Your task to perform on an android device: turn off improve location accuracy Image 0: 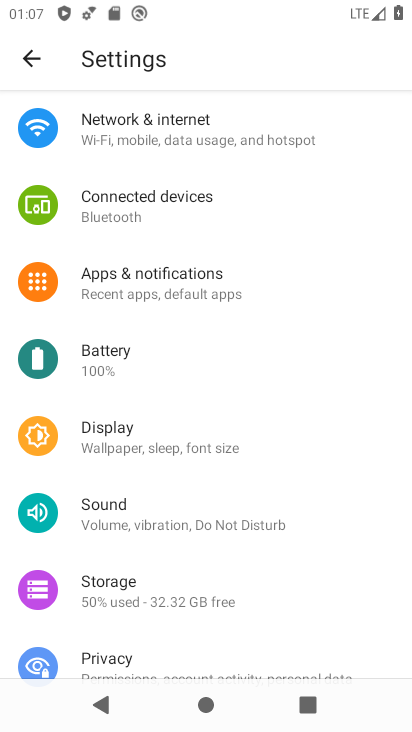
Step 0: drag from (216, 628) to (286, 208)
Your task to perform on an android device: turn off improve location accuracy Image 1: 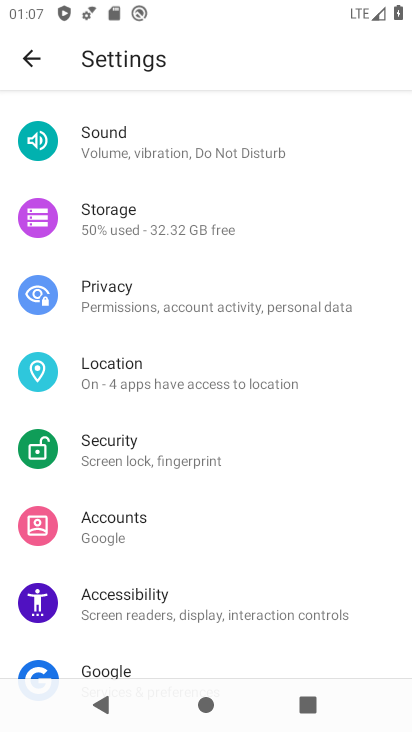
Step 1: click (176, 369)
Your task to perform on an android device: turn off improve location accuracy Image 2: 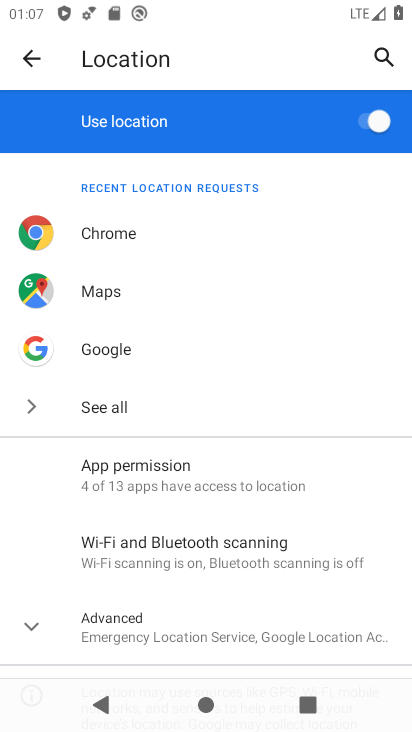
Step 2: click (28, 628)
Your task to perform on an android device: turn off improve location accuracy Image 3: 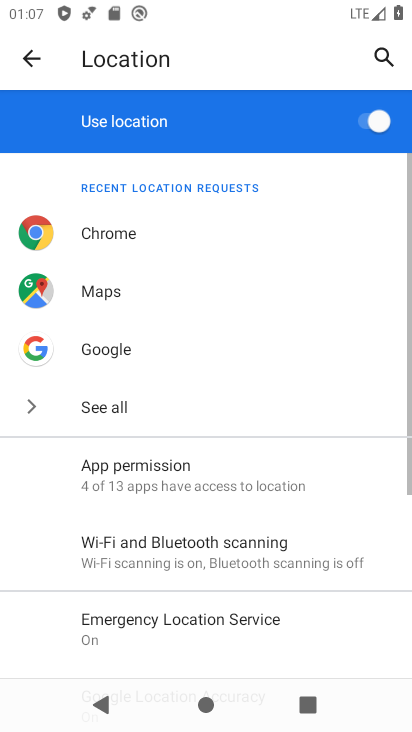
Step 3: drag from (192, 591) to (262, 213)
Your task to perform on an android device: turn off improve location accuracy Image 4: 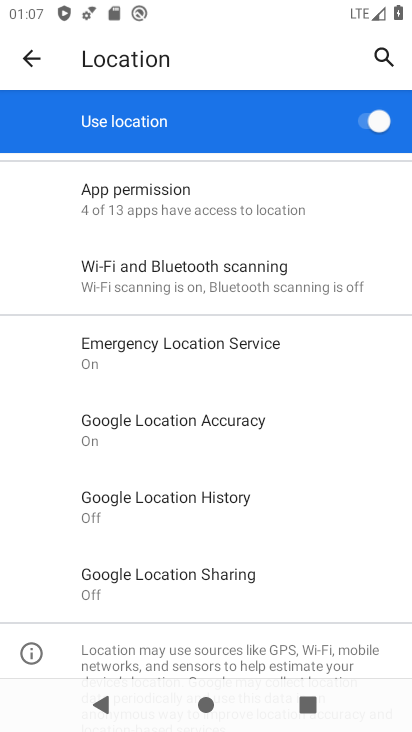
Step 4: click (207, 436)
Your task to perform on an android device: turn off improve location accuracy Image 5: 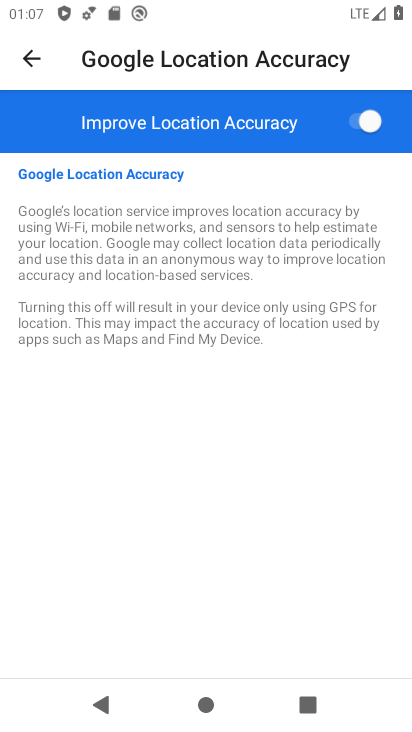
Step 5: click (366, 113)
Your task to perform on an android device: turn off improve location accuracy Image 6: 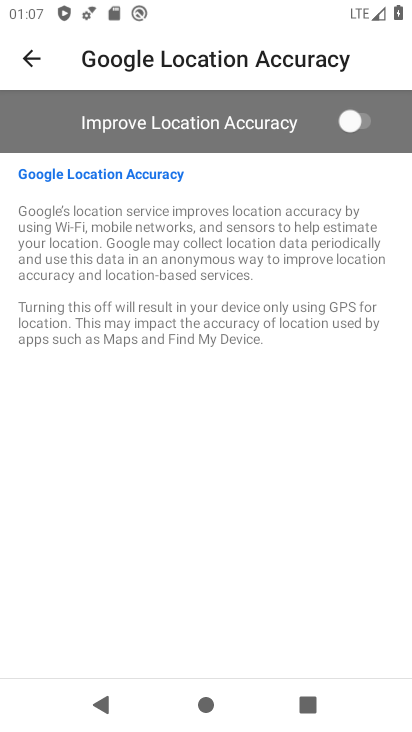
Step 6: task complete